Your task to perform on an android device: visit the assistant section in the google photos Image 0: 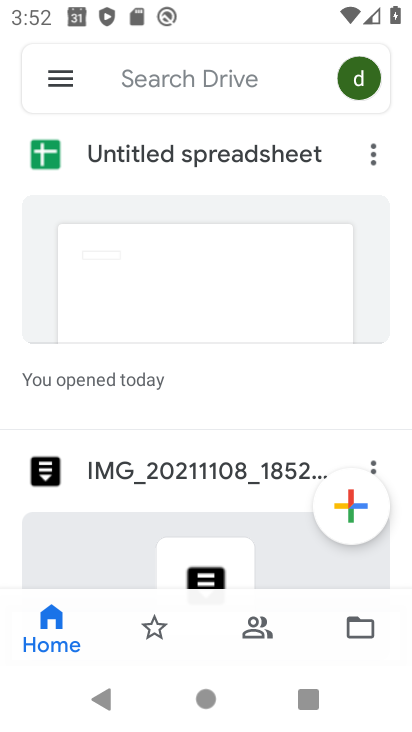
Step 0: press home button
Your task to perform on an android device: visit the assistant section in the google photos Image 1: 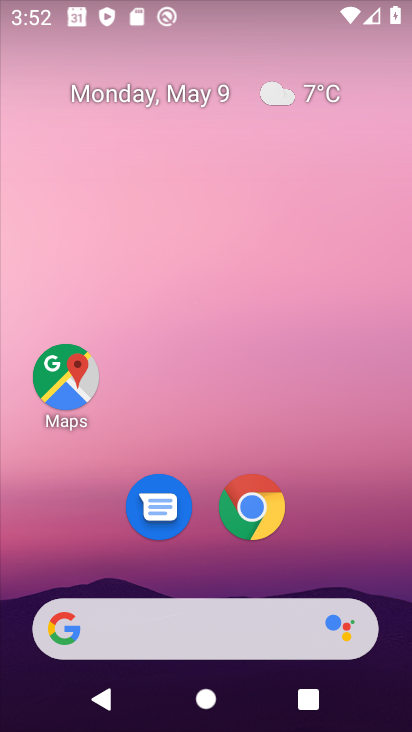
Step 1: drag from (240, 660) to (263, 66)
Your task to perform on an android device: visit the assistant section in the google photos Image 2: 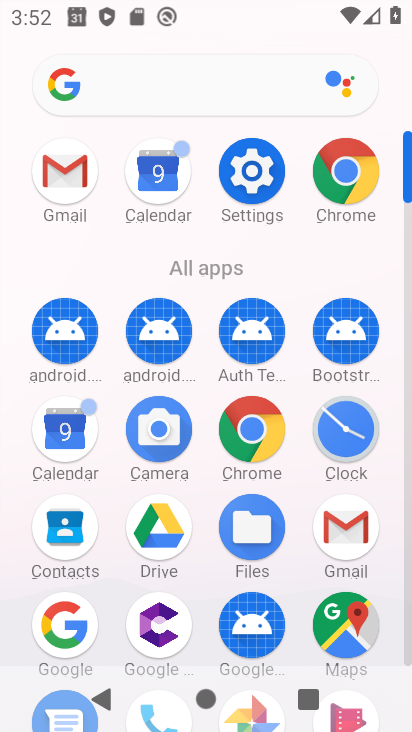
Step 2: drag from (193, 580) to (195, 423)
Your task to perform on an android device: visit the assistant section in the google photos Image 3: 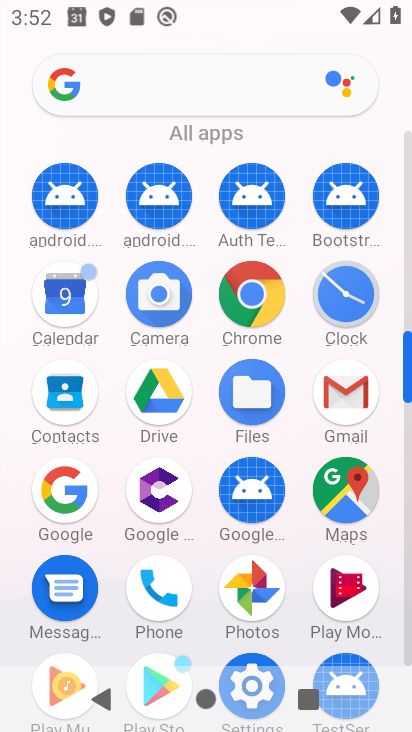
Step 3: click (263, 584)
Your task to perform on an android device: visit the assistant section in the google photos Image 4: 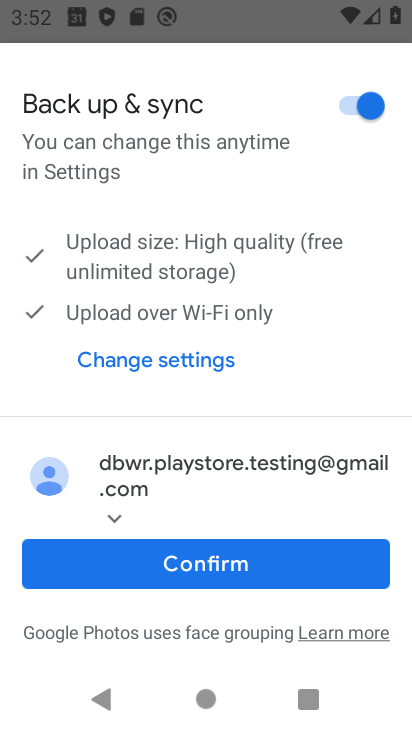
Step 4: click (214, 554)
Your task to perform on an android device: visit the assistant section in the google photos Image 5: 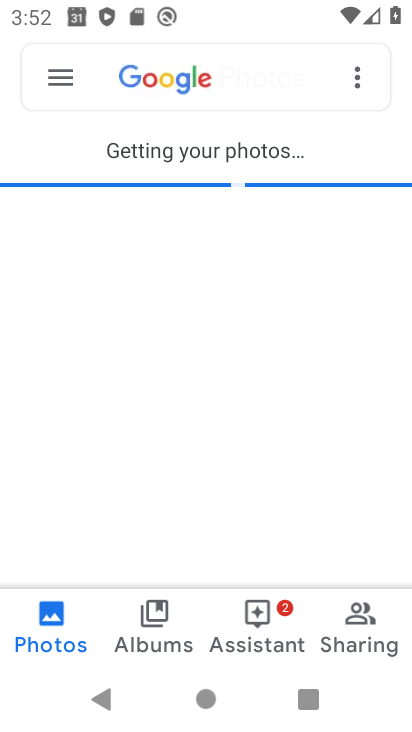
Step 5: click (269, 635)
Your task to perform on an android device: visit the assistant section in the google photos Image 6: 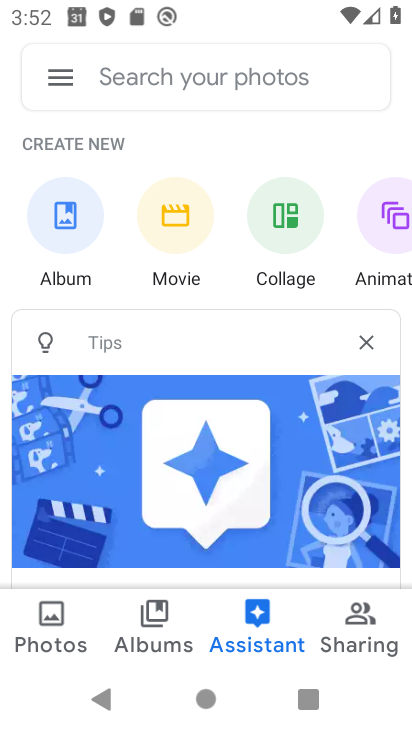
Step 6: task complete